Your task to perform on an android device: Go to CNN.com Image 0: 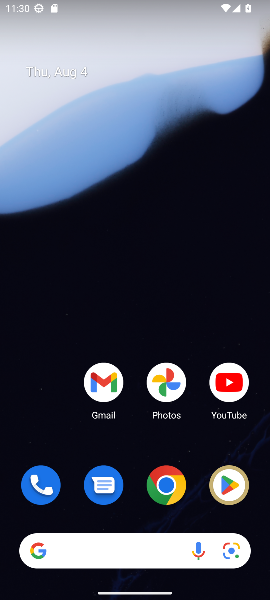
Step 0: click (169, 484)
Your task to perform on an android device: Go to CNN.com Image 1: 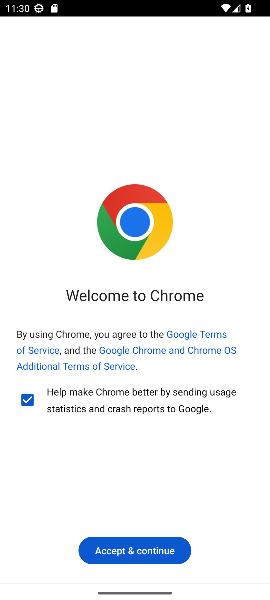
Step 1: click (144, 548)
Your task to perform on an android device: Go to CNN.com Image 2: 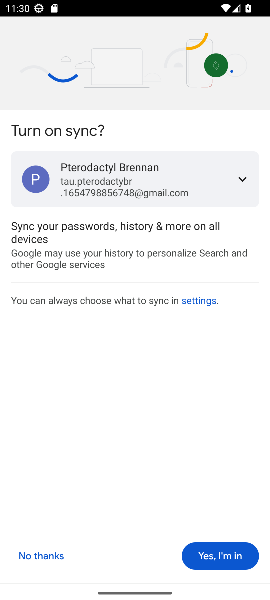
Step 2: click (214, 557)
Your task to perform on an android device: Go to CNN.com Image 3: 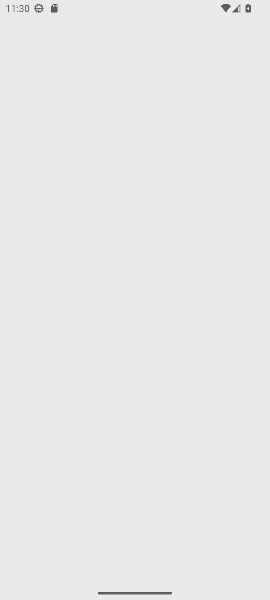
Step 3: click (214, 557)
Your task to perform on an android device: Go to CNN.com Image 4: 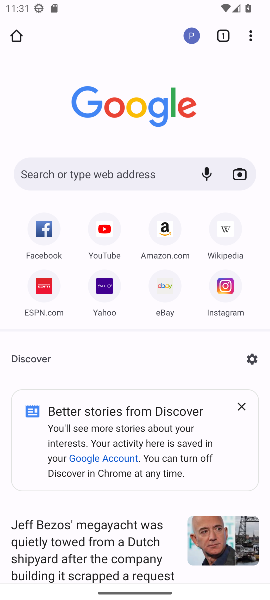
Step 4: click (104, 171)
Your task to perform on an android device: Go to CNN.com Image 5: 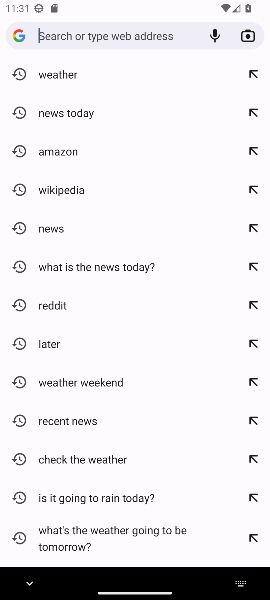
Step 5: type "CNN.com"
Your task to perform on an android device: Go to CNN.com Image 6: 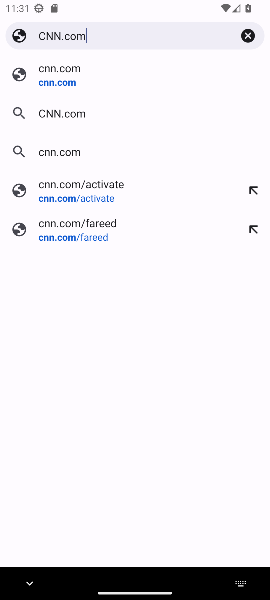
Step 6: click (46, 79)
Your task to perform on an android device: Go to CNN.com Image 7: 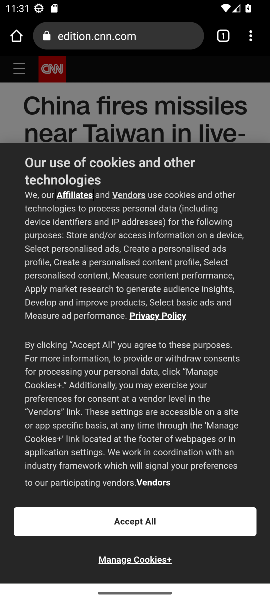
Step 7: task complete